Your task to perform on an android device: turn off wifi Image 0: 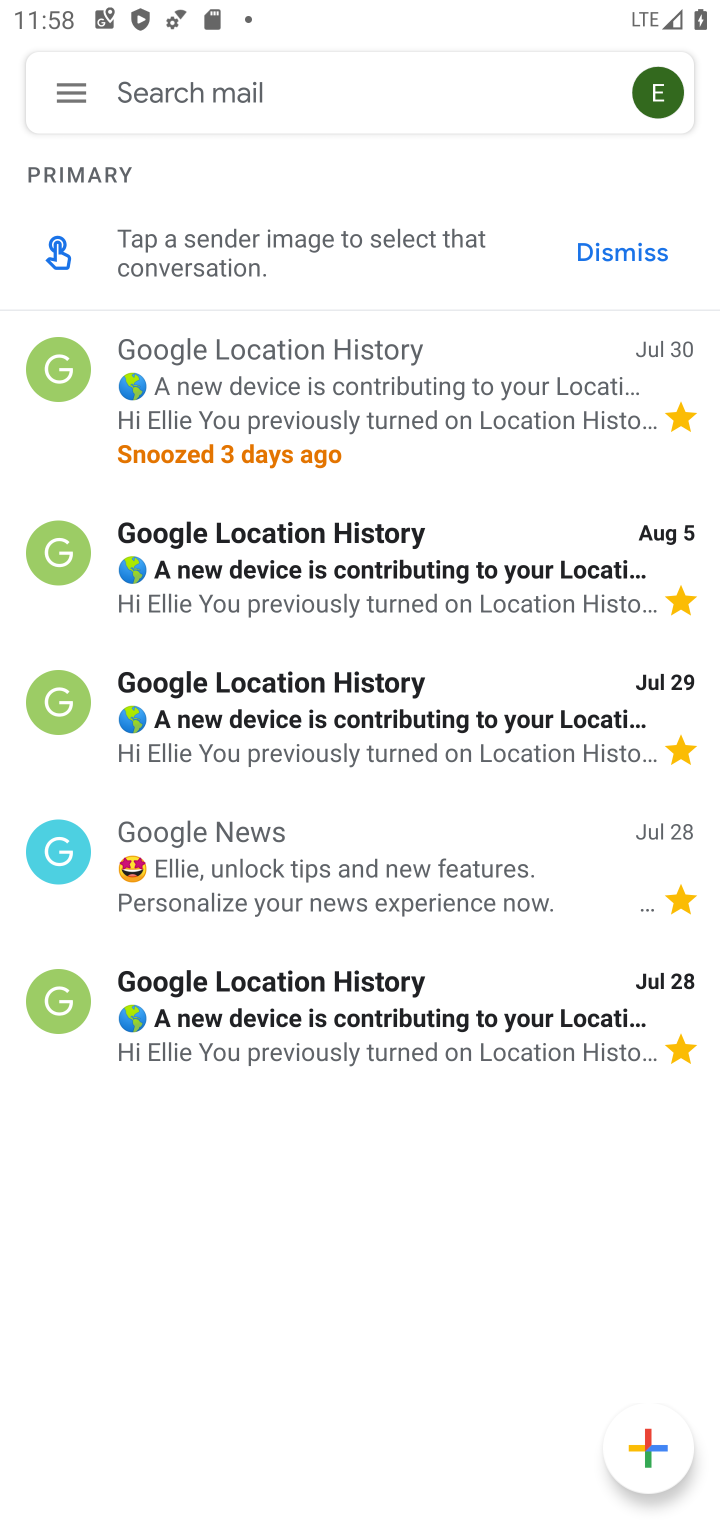
Step 0: press back button
Your task to perform on an android device: turn off wifi Image 1: 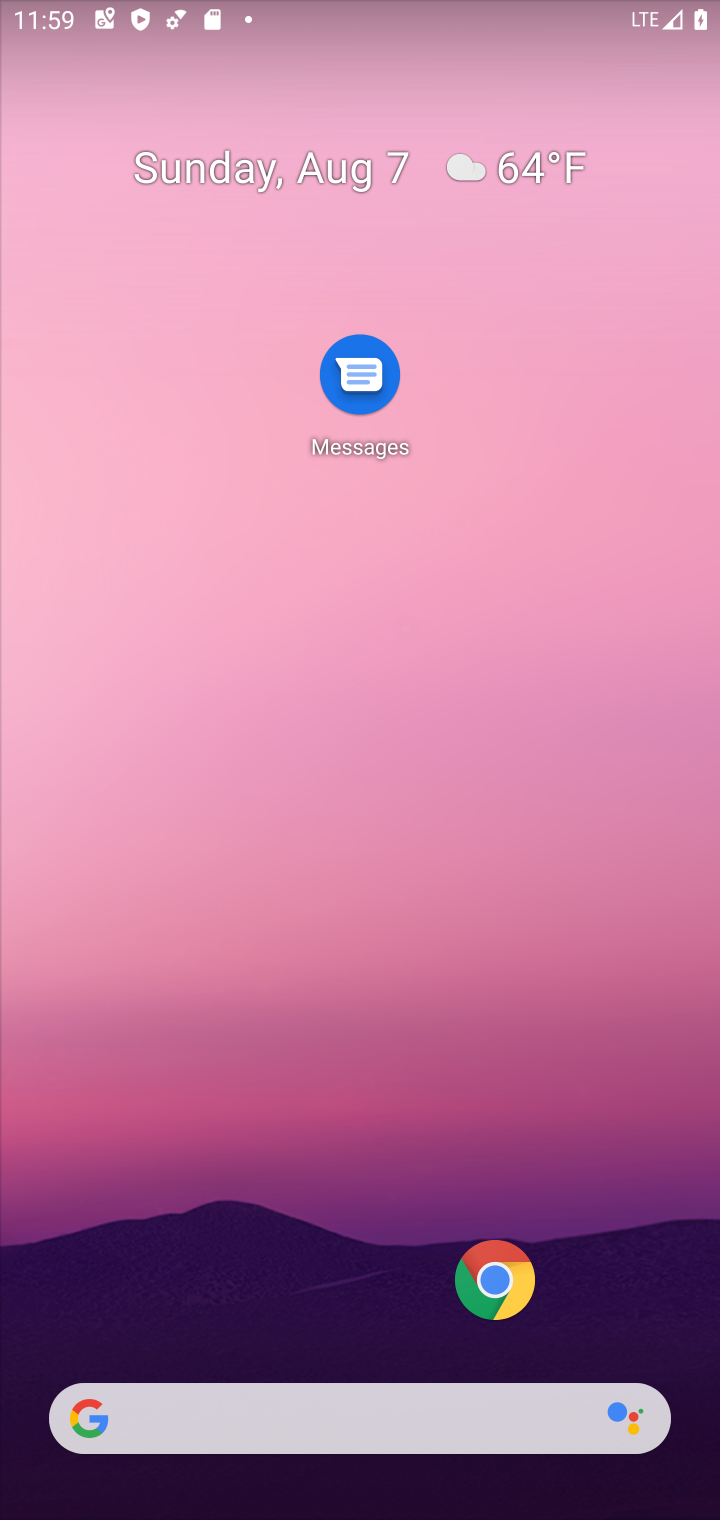
Step 1: task complete